Your task to perform on an android device: read, delete, or share a saved page in the chrome app Image 0: 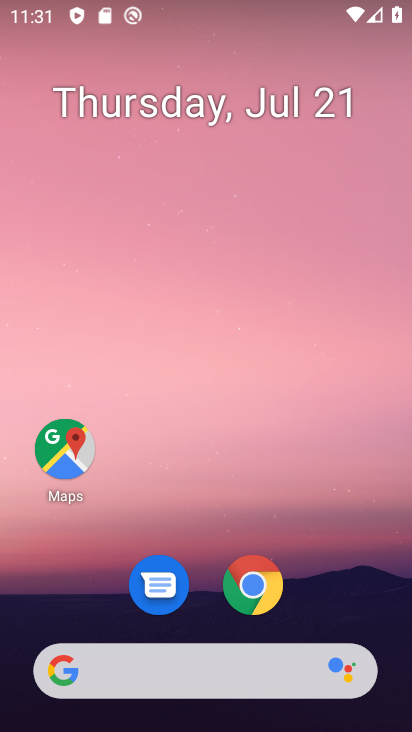
Step 0: press home button
Your task to perform on an android device: read, delete, or share a saved page in the chrome app Image 1: 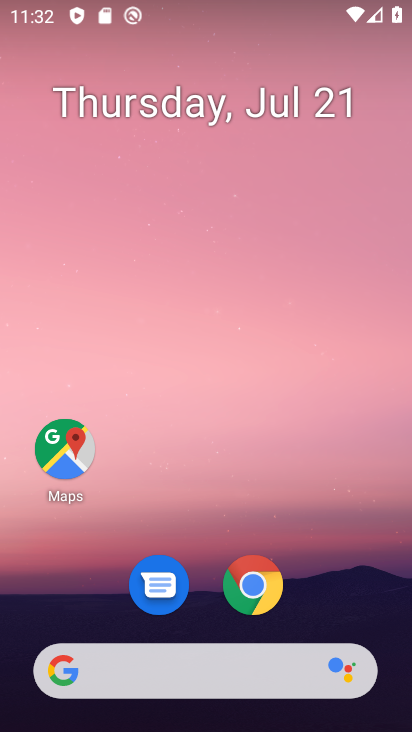
Step 1: click (246, 593)
Your task to perform on an android device: read, delete, or share a saved page in the chrome app Image 2: 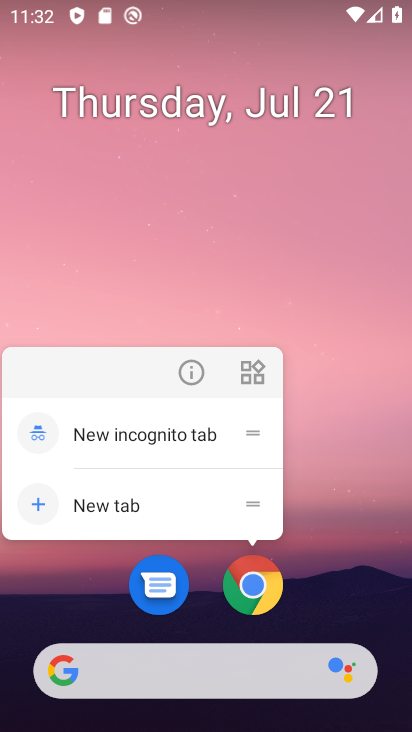
Step 2: click (253, 586)
Your task to perform on an android device: read, delete, or share a saved page in the chrome app Image 3: 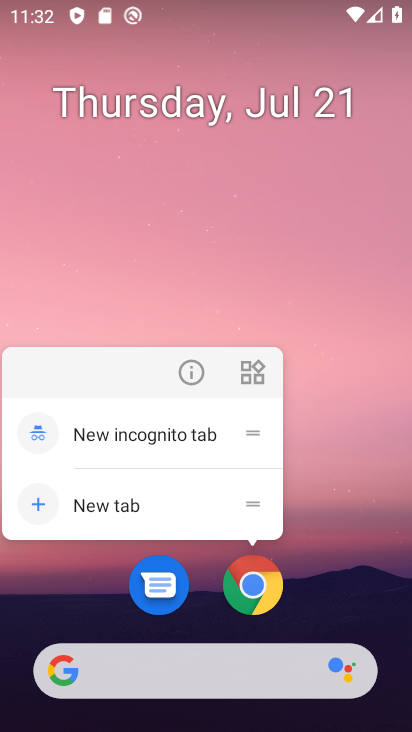
Step 3: click (253, 583)
Your task to perform on an android device: read, delete, or share a saved page in the chrome app Image 4: 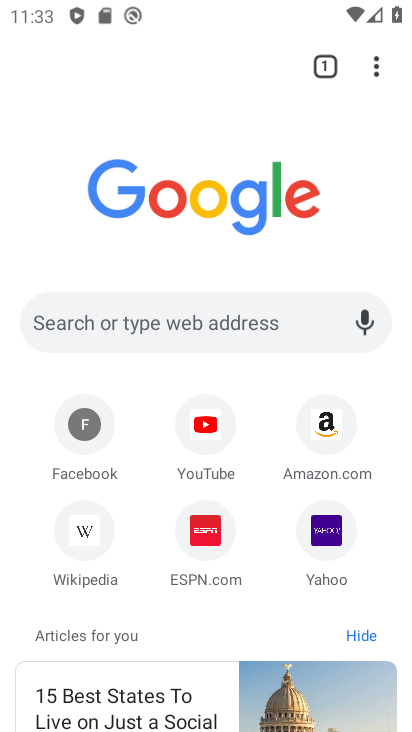
Step 4: click (373, 70)
Your task to perform on an android device: read, delete, or share a saved page in the chrome app Image 5: 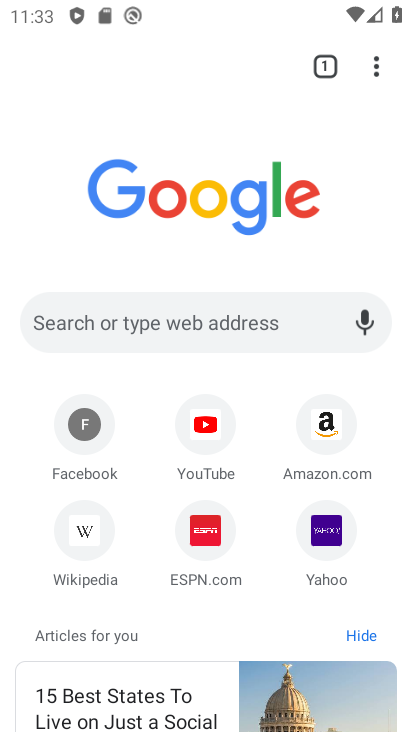
Step 5: drag from (374, 63) to (157, 431)
Your task to perform on an android device: read, delete, or share a saved page in the chrome app Image 6: 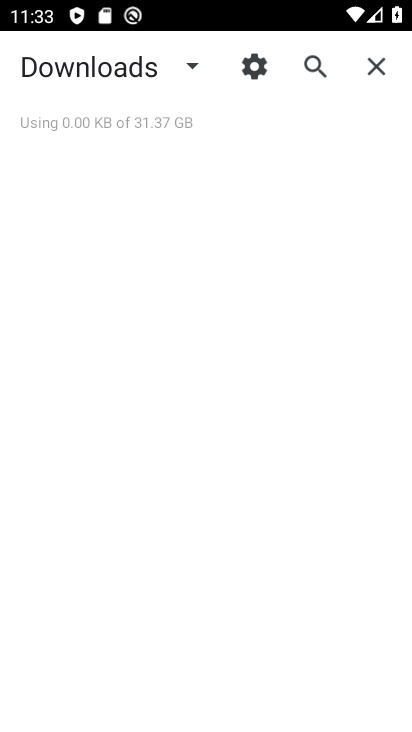
Step 6: click (182, 65)
Your task to perform on an android device: read, delete, or share a saved page in the chrome app Image 7: 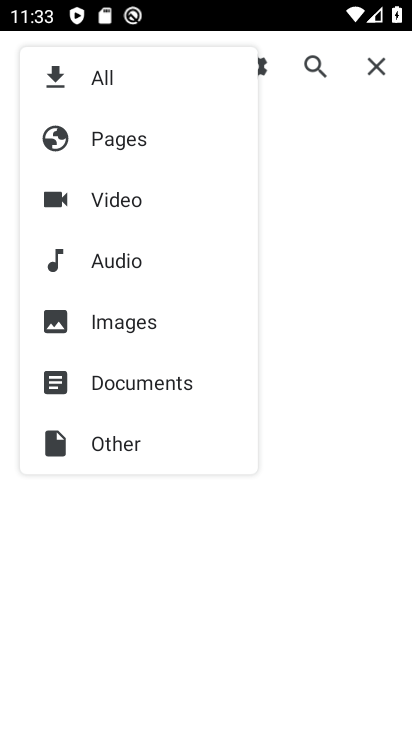
Step 7: click (128, 139)
Your task to perform on an android device: read, delete, or share a saved page in the chrome app Image 8: 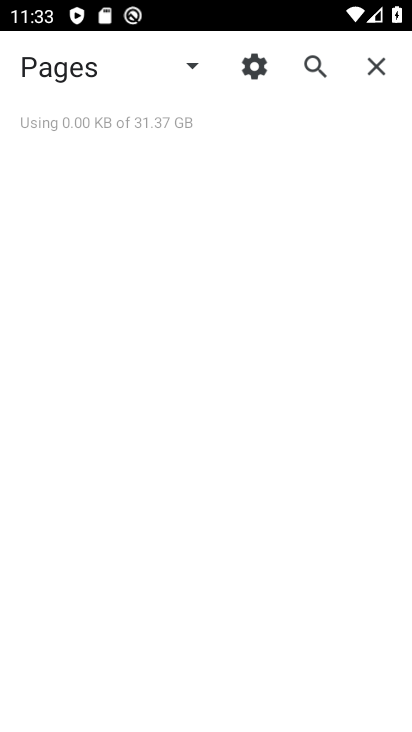
Step 8: task complete